Your task to perform on an android device: Go to privacy settings Image 0: 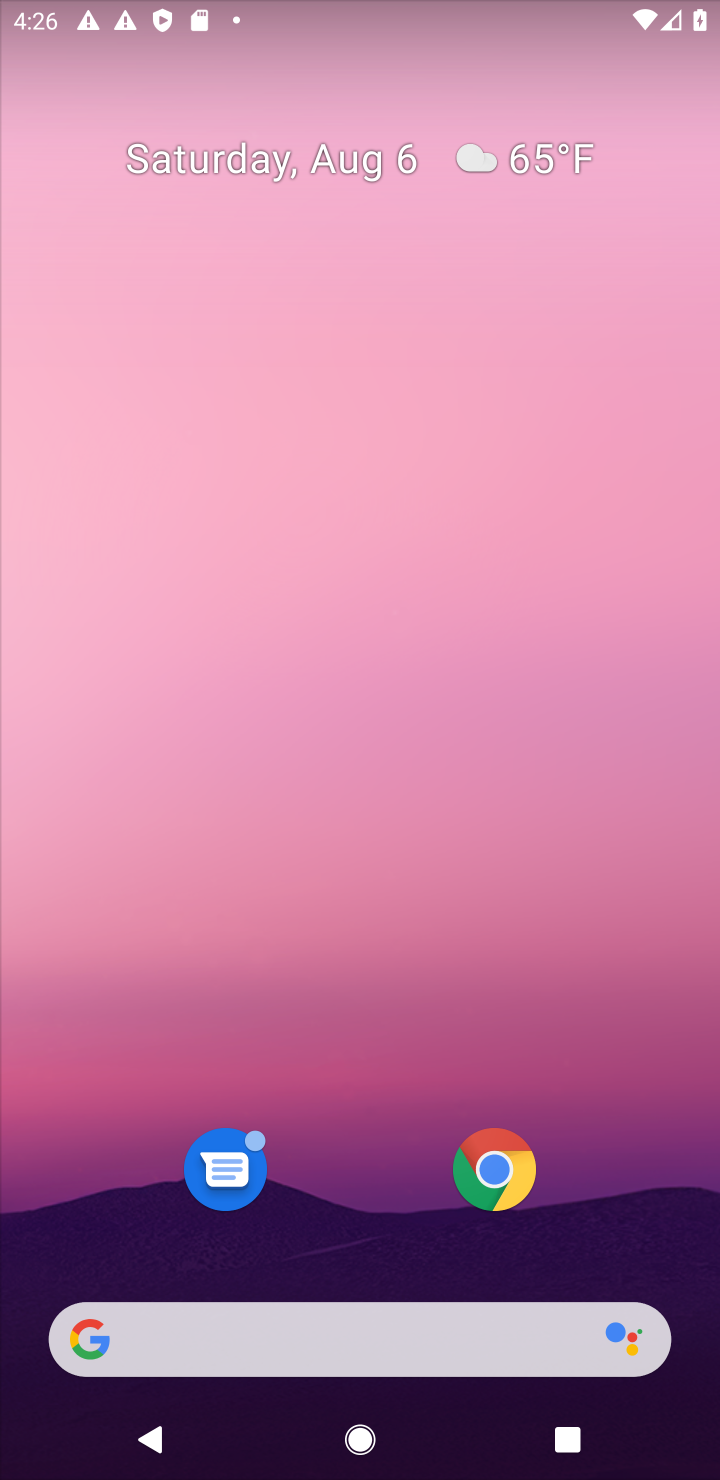
Step 0: drag from (352, 1221) to (352, 248)
Your task to perform on an android device: Go to privacy settings Image 1: 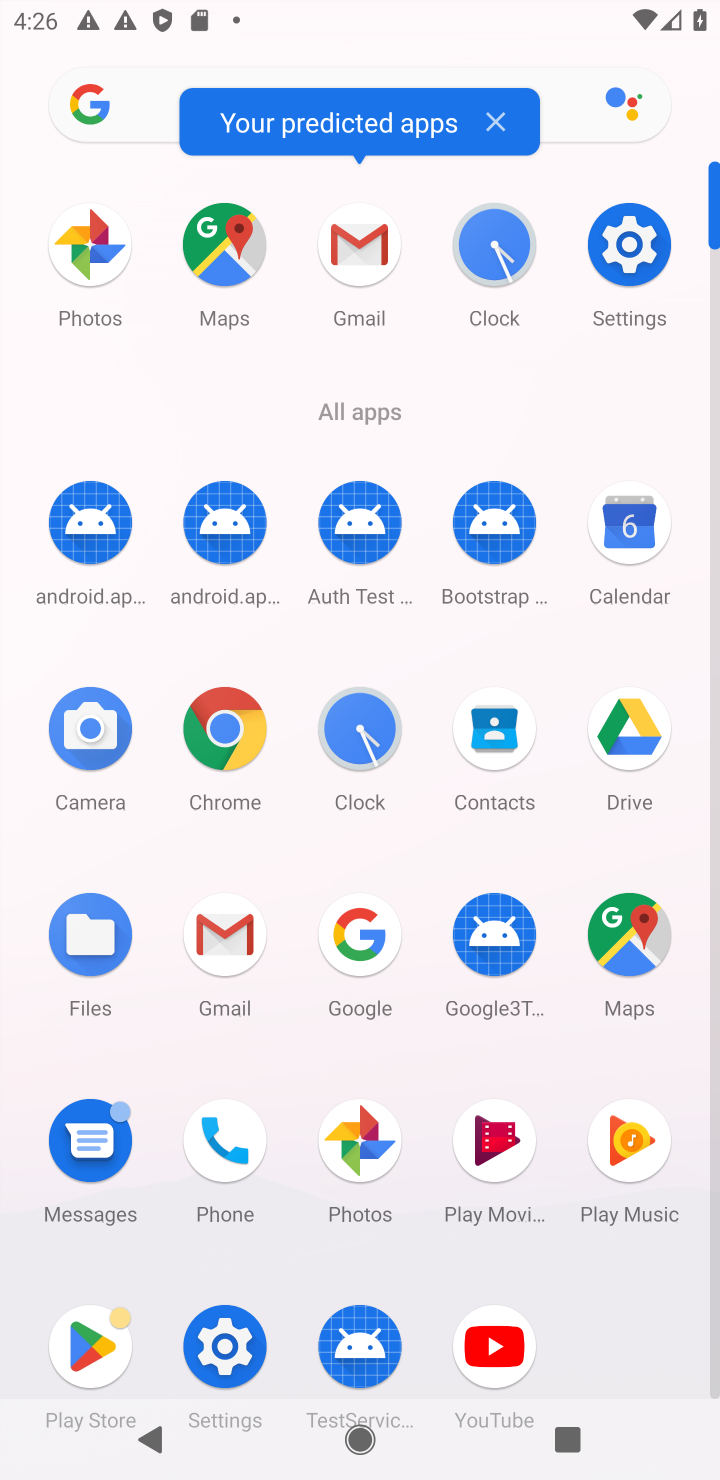
Step 1: click (231, 1338)
Your task to perform on an android device: Go to privacy settings Image 2: 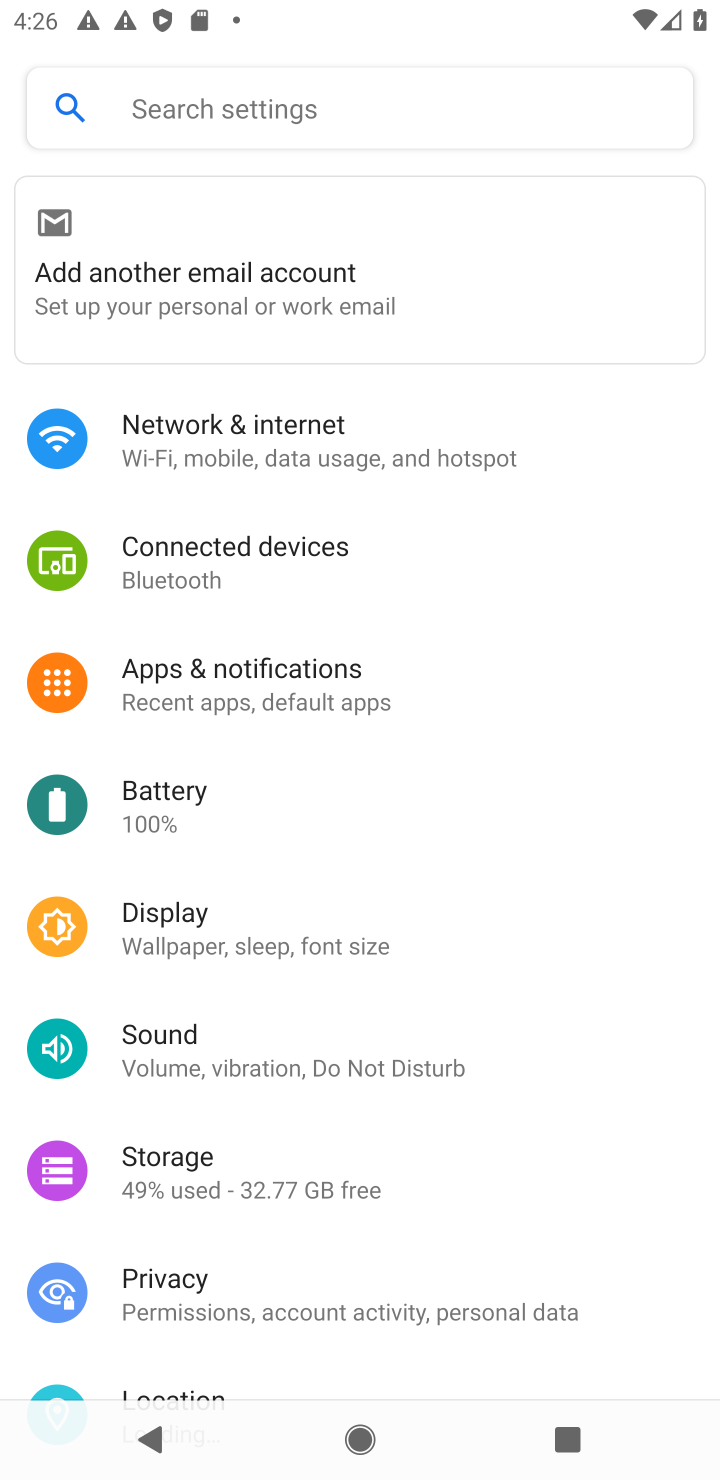
Step 2: click (208, 1272)
Your task to perform on an android device: Go to privacy settings Image 3: 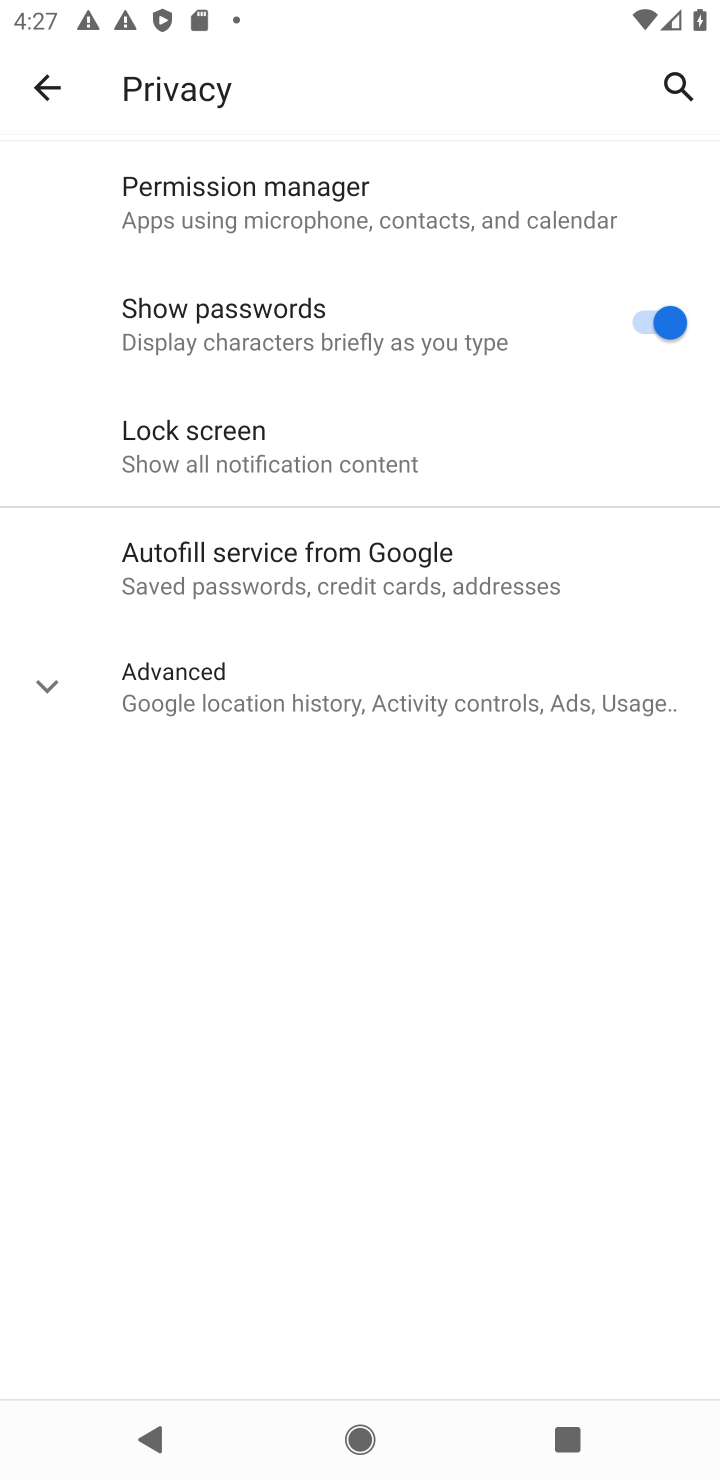
Step 3: task complete